Your task to perform on an android device: open sync settings in chrome Image 0: 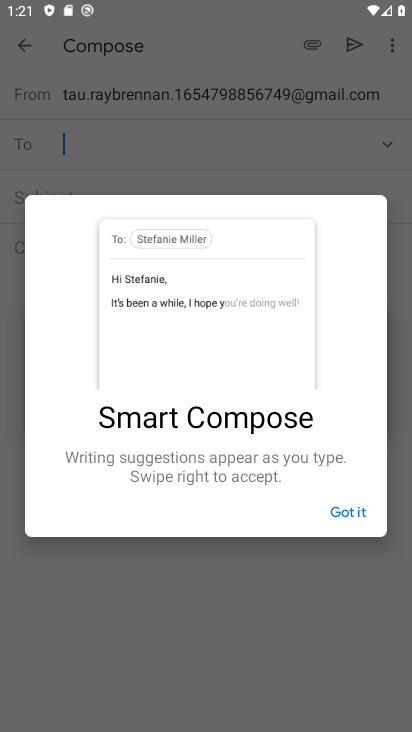
Step 0: press home button
Your task to perform on an android device: open sync settings in chrome Image 1: 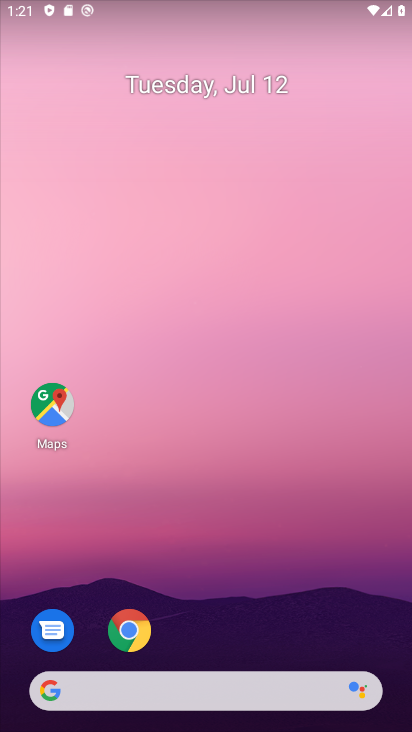
Step 1: click (126, 626)
Your task to perform on an android device: open sync settings in chrome Image 2: 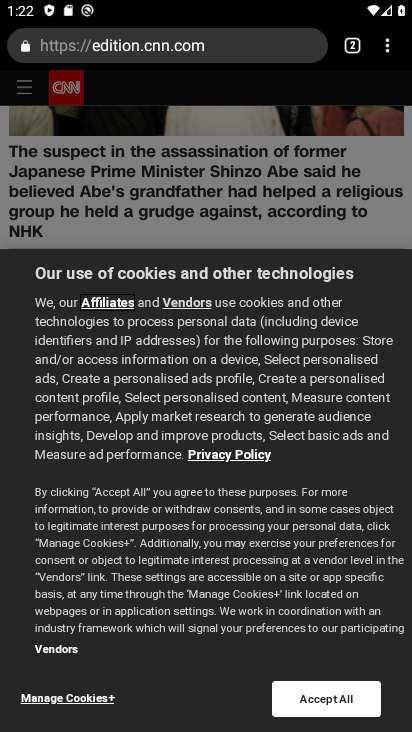
Step 2: click (200, 482)
Your task to perform on an android device: open sync settings in chrome Image 3: 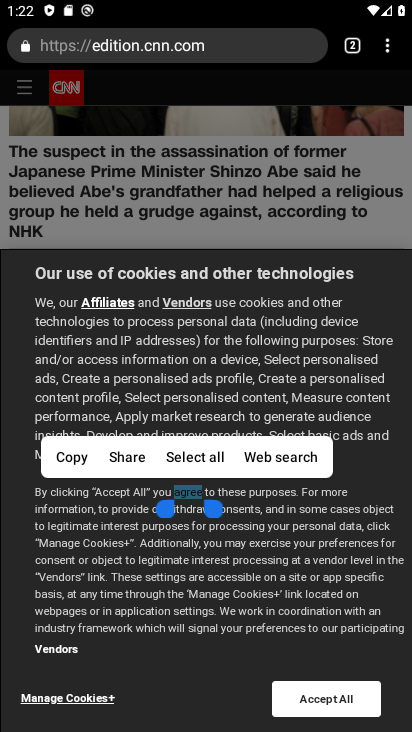
Step 3: click (381, 50)
Your task to perform on an android device: open sync settings in chrome Image 4: 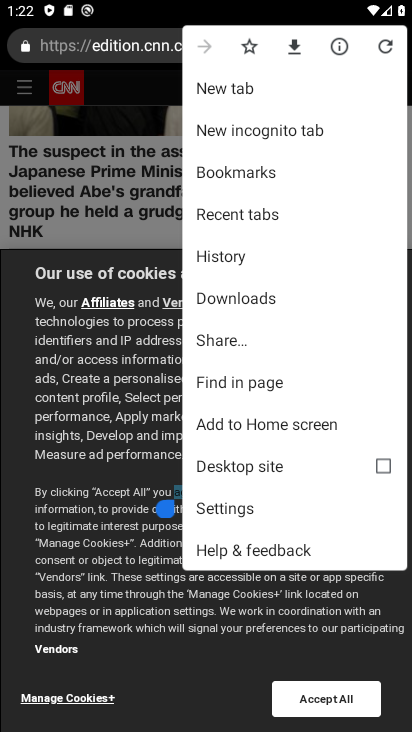
Step 4: click (229, 507)
Your task to perform on an android device: open sync settings in chrome Image 5: 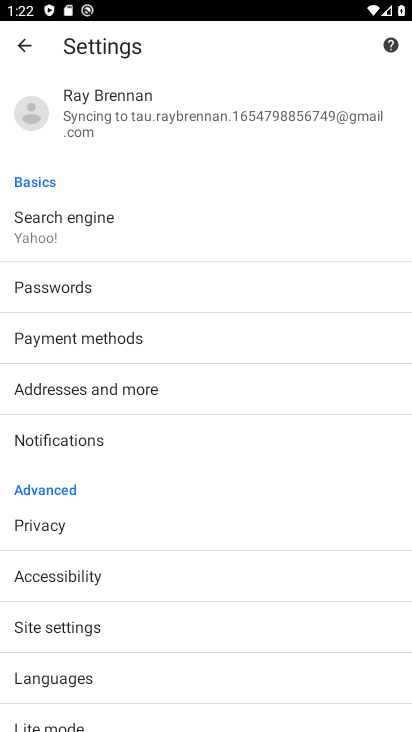
Step 5: click (116, 108)
Your task to perform on an android device: open sync settings in chrome Image 6: 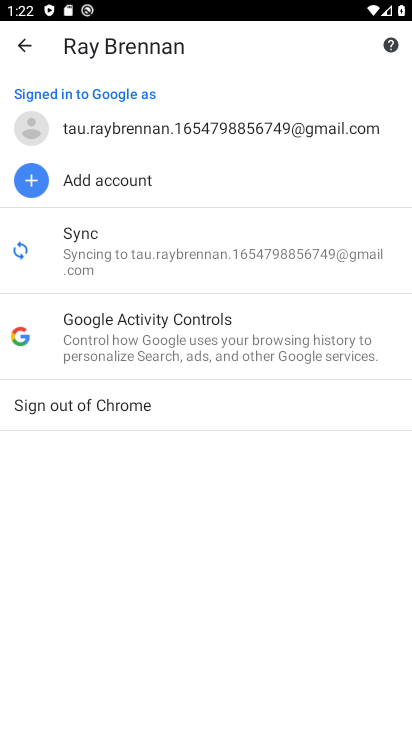
Step 6: click (90, 249)
Your task to perform on an android device: open sync settings in chrome Image 7: 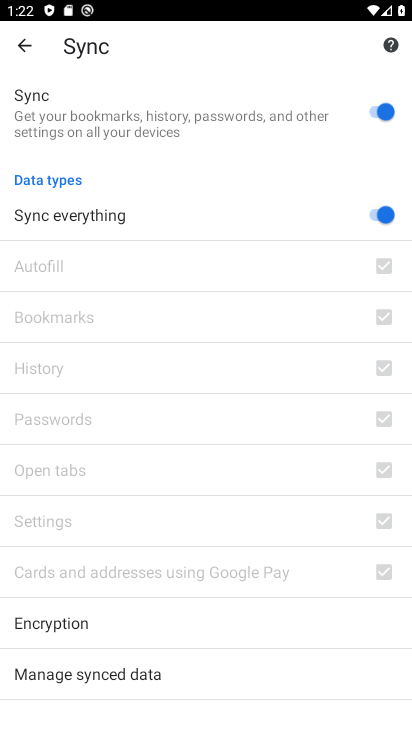
Step 7: task complete